Your task to perform on an android device: install app "ColorNote Notepad Notes" Image 0: 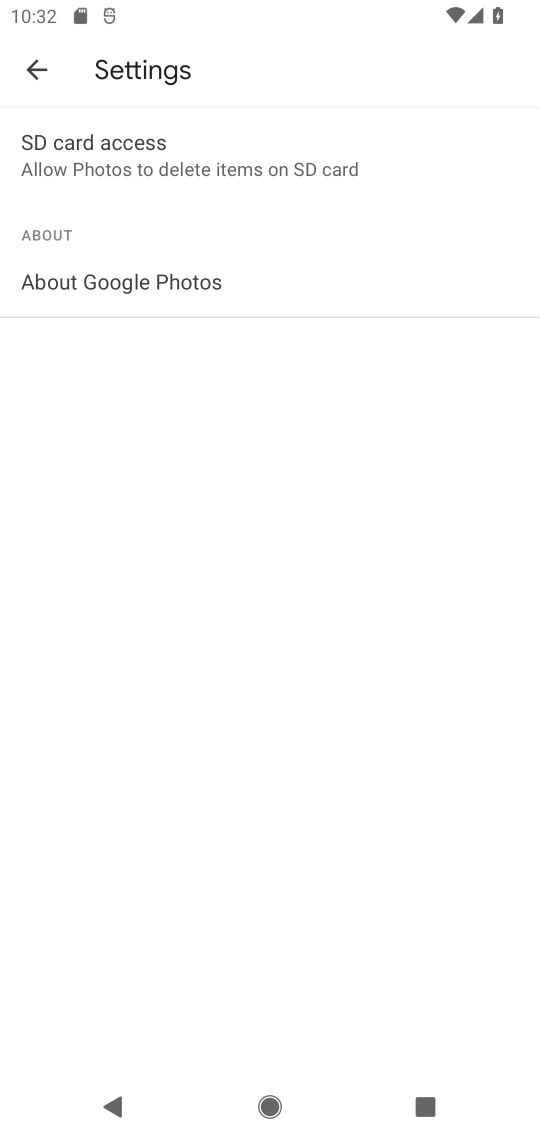
Step 0: press home button
Your task to perform on an android device: install app "ColorNote Notepad Notes" Image 1: 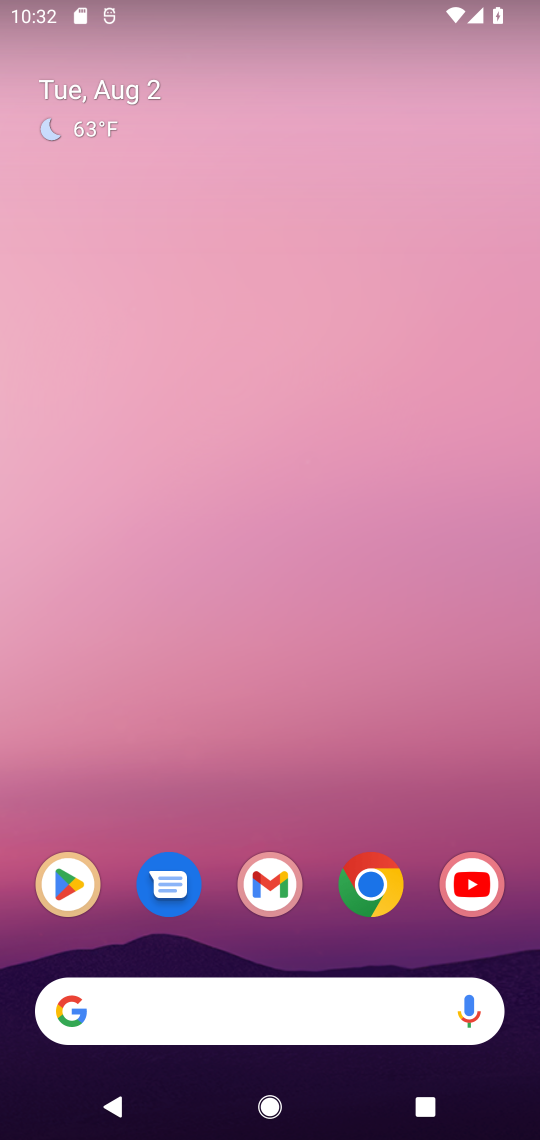
Step 1: click (71, 896)
Your task to perform on an android device: install app "ColorNote Notepad Notes" Image 2: 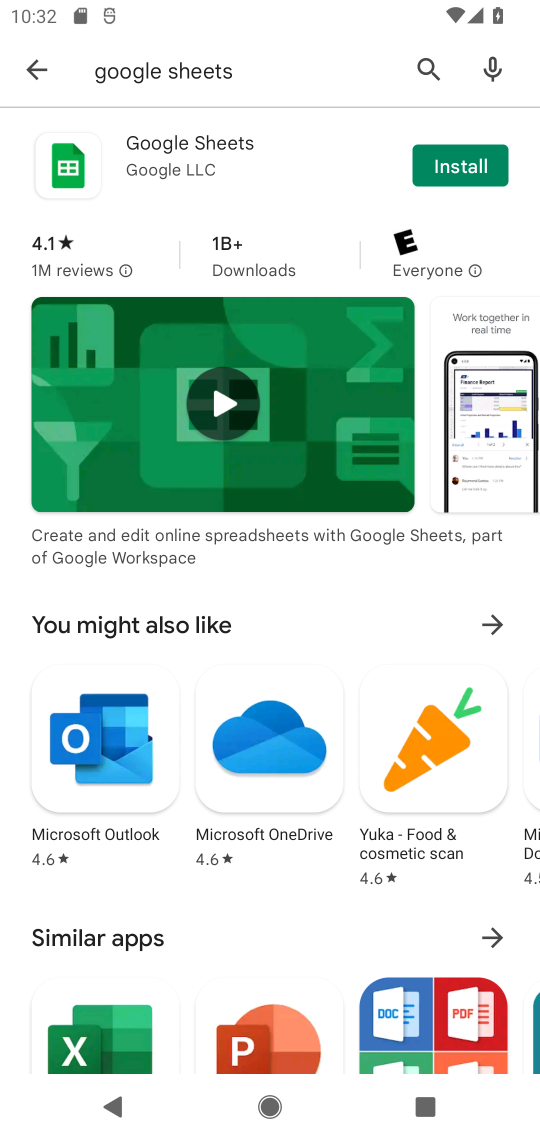
Step 2: click (196, 72)
Your task to perform on an android device: install app "ColorNote Notepad Notes" Image 3: 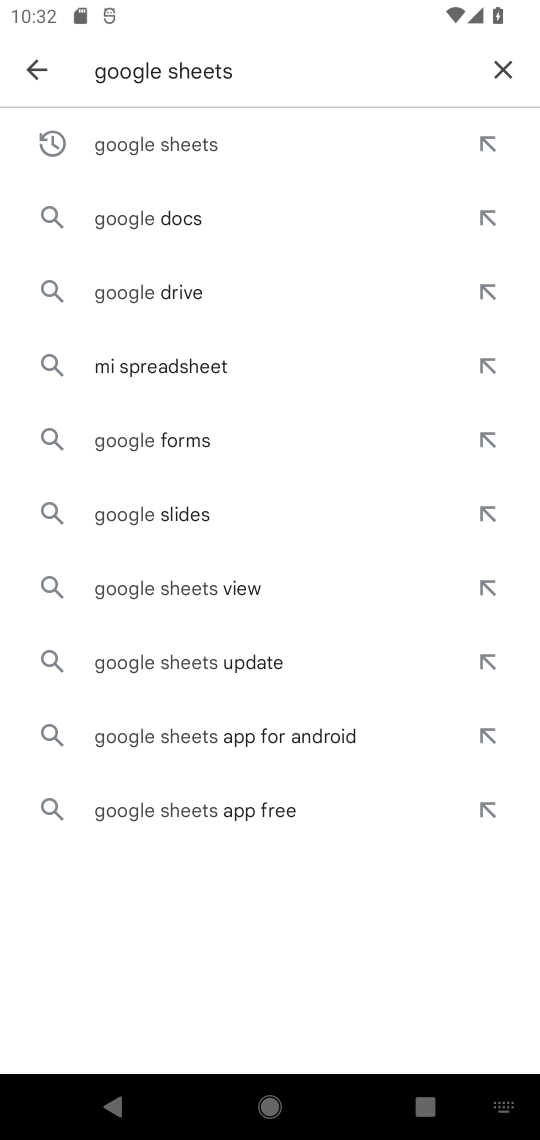
Step 3: click (509, 70)
Your task to perform on an android device: install app "ColorNote Notepad Notes" Image 4: 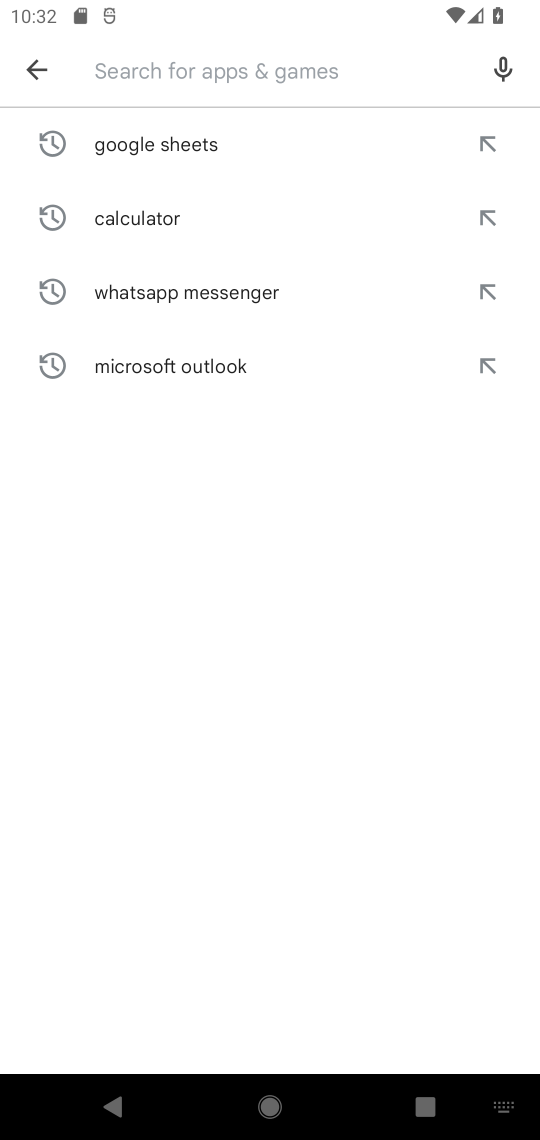
Step 4: type "ColoNote Notepad Notes"
Your task to perform on an android device: install app "ColorNote Notepad Notes" Image 5: 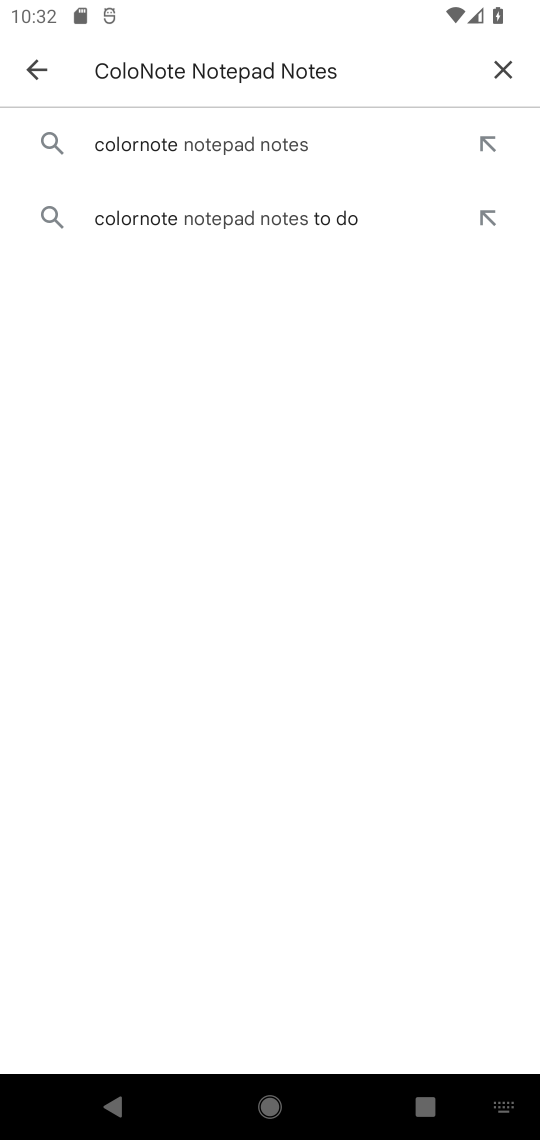
Step 5: click (146, 139)
Your task to perform on an android device: install app "ColorNote Notepad Notes" Image 6: 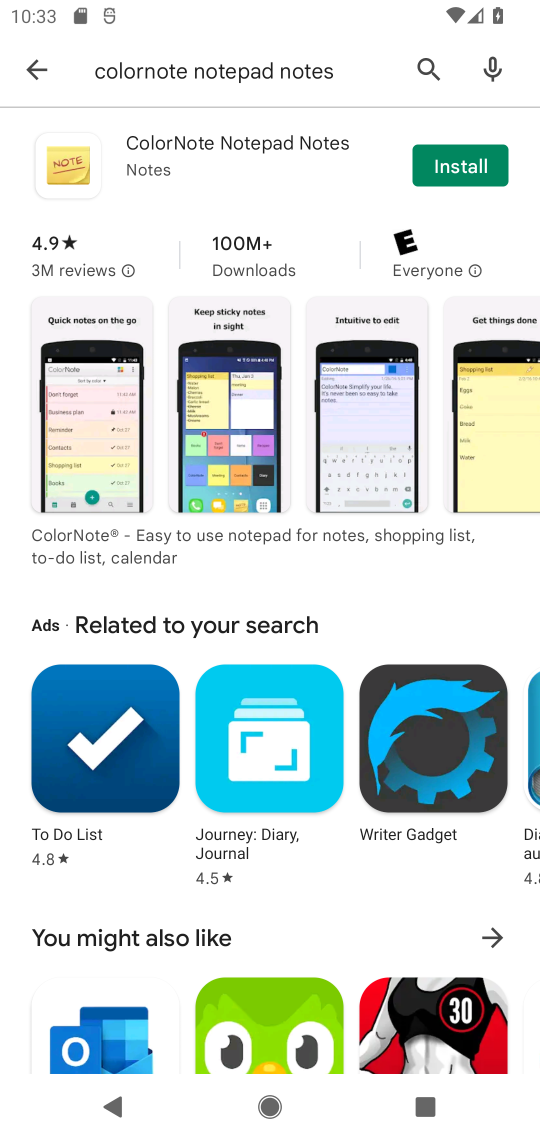
Step 6: click (467, 152)
Your task to perform on an android device: install app "ColorNote Notepad Notes" Image 7: 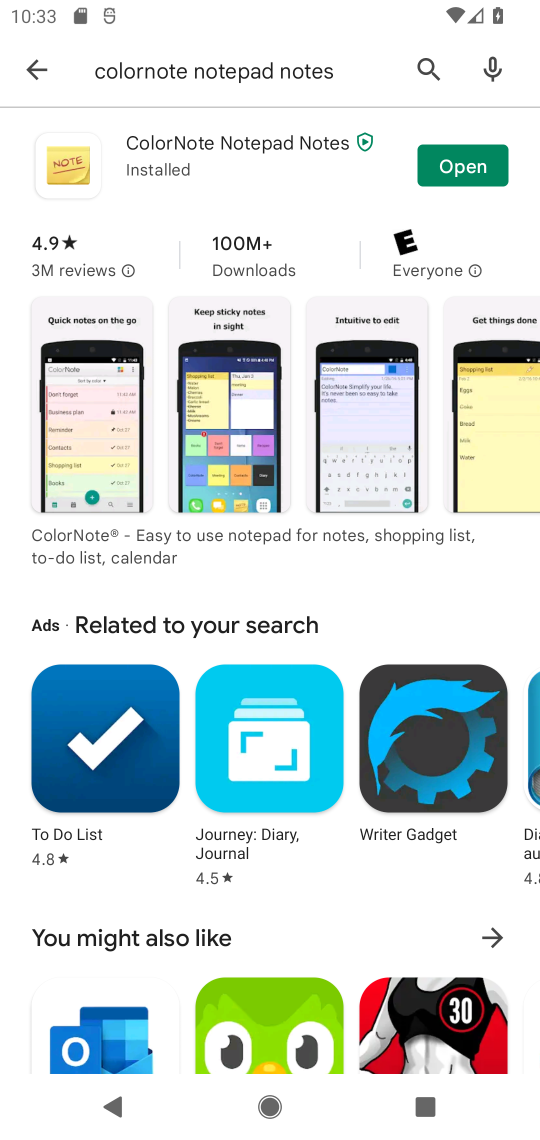
Step 7: task complete